Your task to perform on an android device: Go to Maps Image 0: 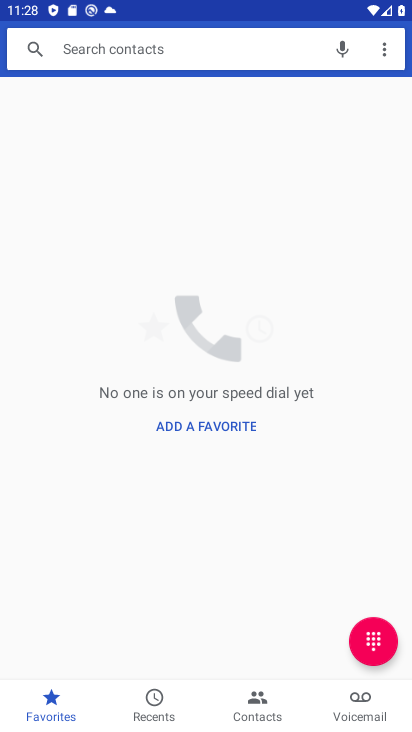
Step 0: press home button
Your task to perform on an android device: Go to Maps Image 1: 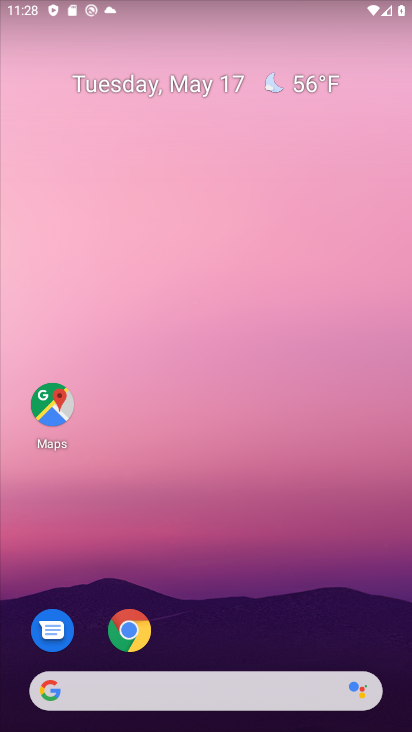
Step 1: drag from (378, 578) to (337, 208)
Your task to perform on an android device: Go to Maps Image 2: 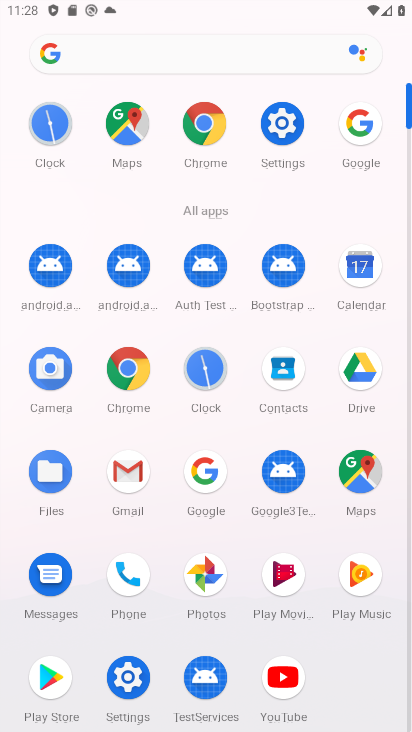
Step 2: click (360, 473)
Your task to perform on an android device: Go to Maps Image 3: 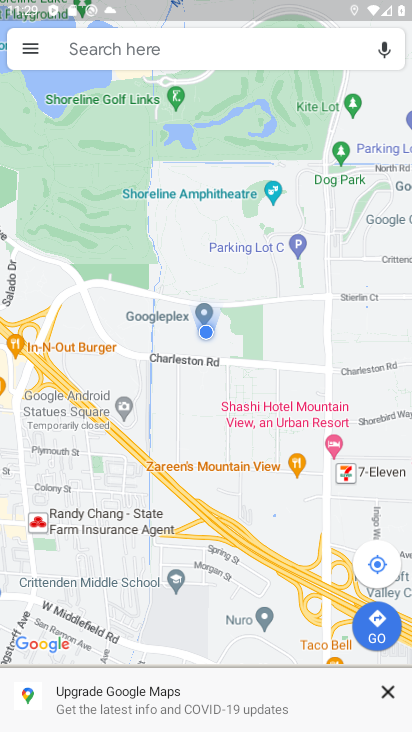
Step 3: task complete